Your task to perform on an android device: Go to battery settings Image 0: 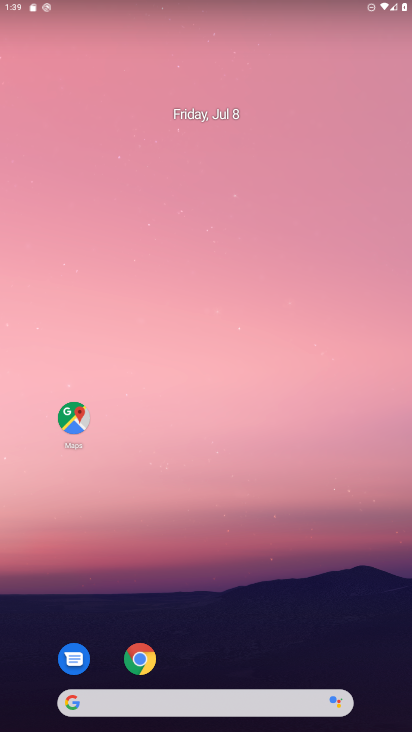
Step 0: drag from (179, 648) to (250, 12)
Your task to perform on an android device: Go to battery settings Image 1: 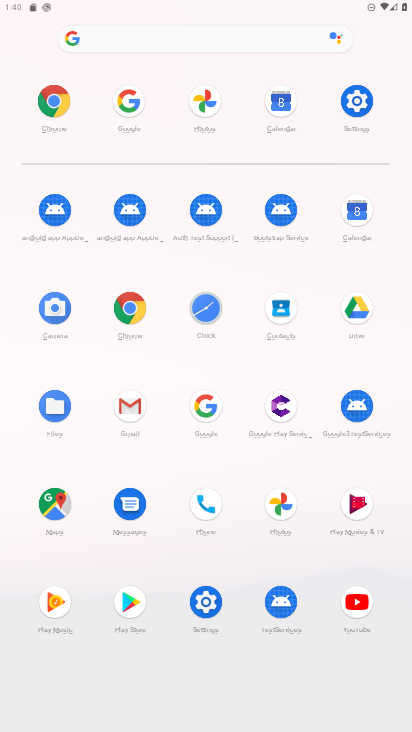
Step 1: click (205, 604)
Your task to perform on an android device: Go to battery settings Image 2: 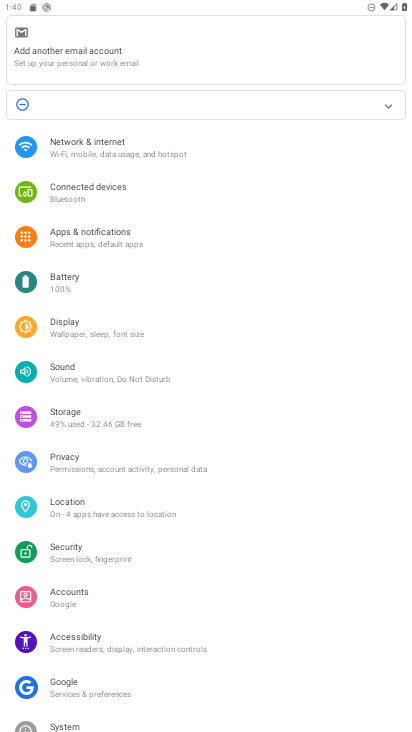
Step 2: click (69, 278)
Your task to perform on an android device: Go to battery settings Image 3: 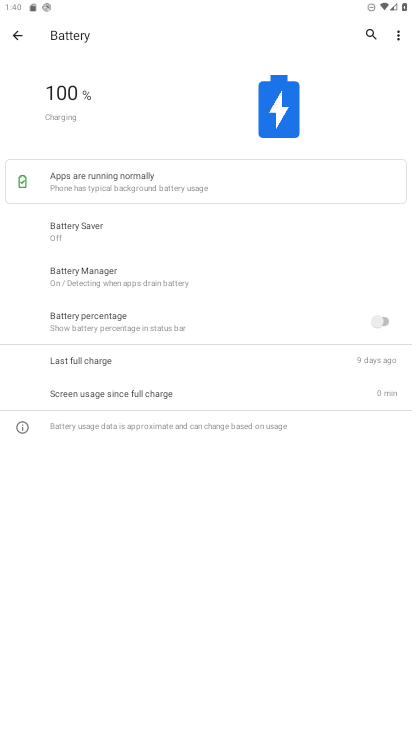
Step 3: task complete